Your task to perform on an android device: Open the map Image 0: 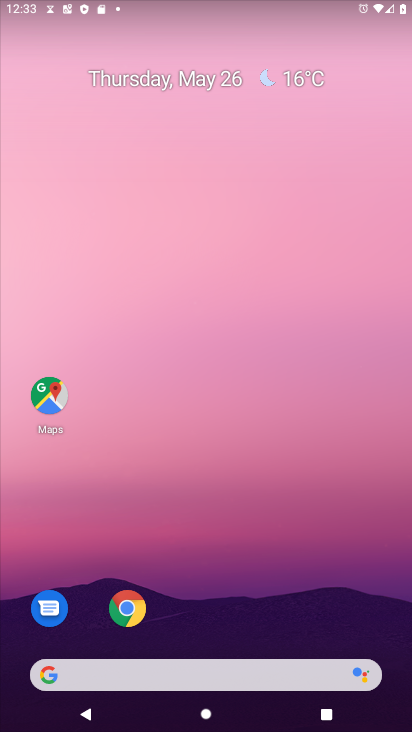
Step 0: drag from (244, 721) to (241, 83)
Your task to perform on an android device: Open the map Image 1: 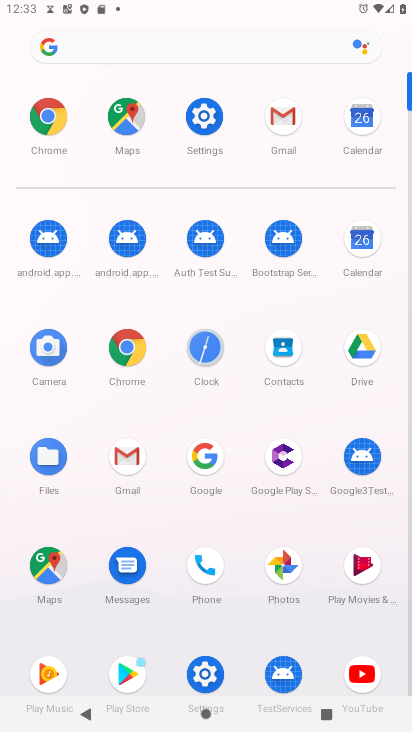
Step 1: click (46, 570)
Your task to perform on an android device: Open the map Image 2: 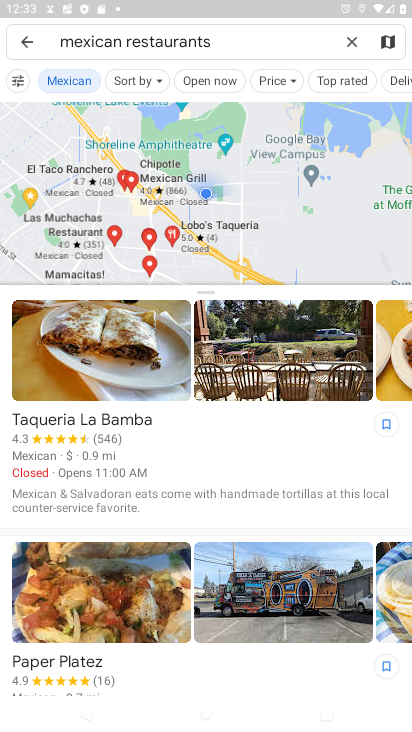
Step 2: task complete